Your task to perform on an android device: Open Google Maps and go to "Timeline" Image 0: 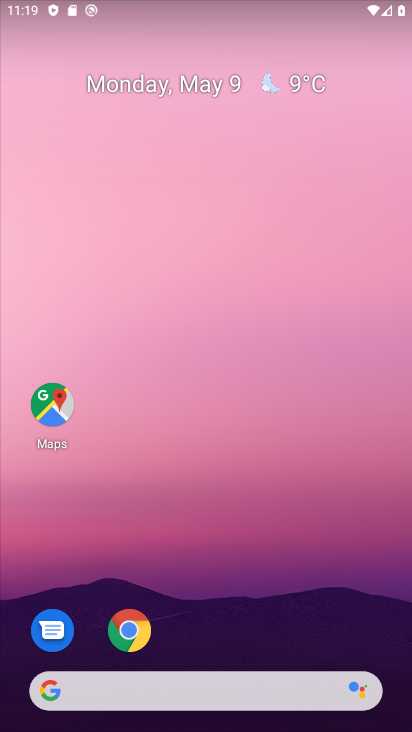
Step 0: click (52, 396)
Your task to perform on an android device: Open Google Maps and go to "Timeline" Image 1: 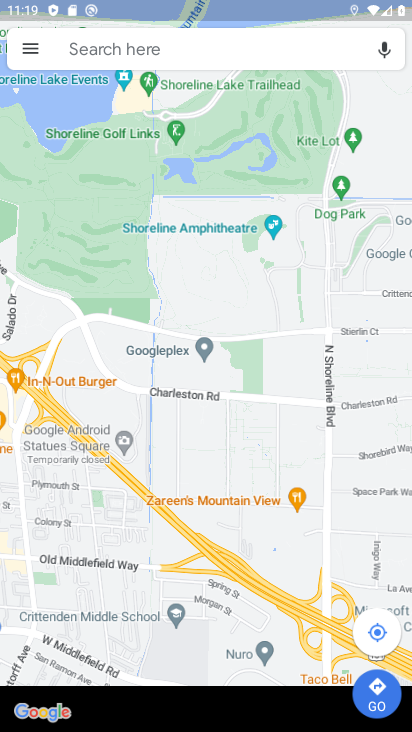
Step 1: click (29, 47)
Your task to perform on an android device: Open Google Maps and go to "Timeline" Image 2: 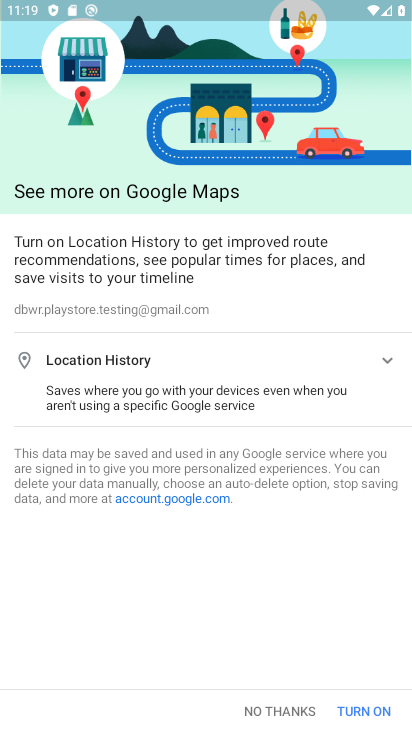
Step 2: click (274, 708)
Your task to perform on an android device: Open Google Maps and go to "Timeline" Image 3: 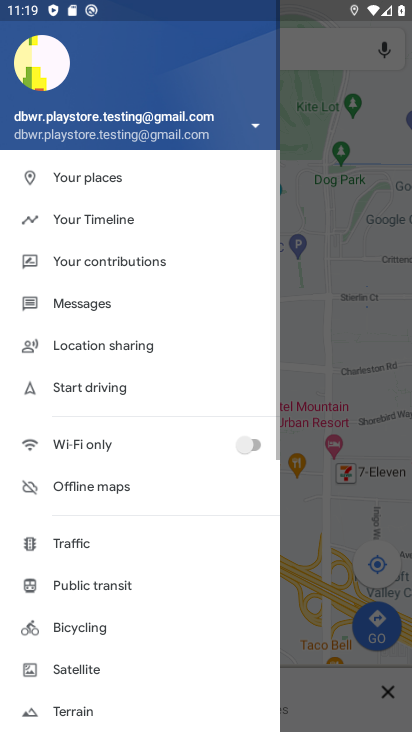
Step 3: click (77, 211)
Your task to perform on an android device: Open Google Maps and go to "Timeline" Image 4: 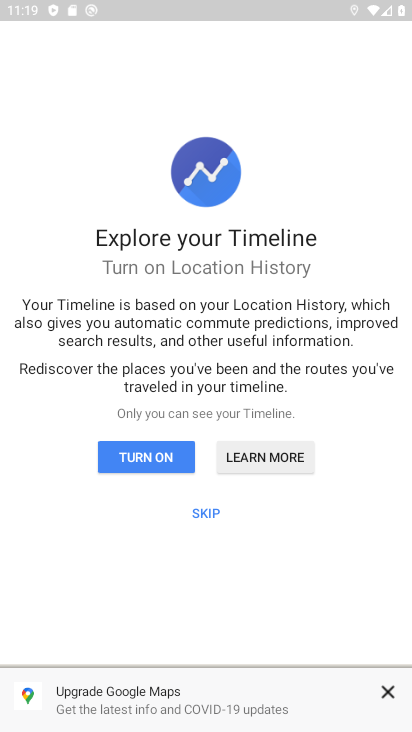
Step 4: click (166, 464)
Your task to perform on an android device: Open Google Maps and go to "Timeline" Image 5: 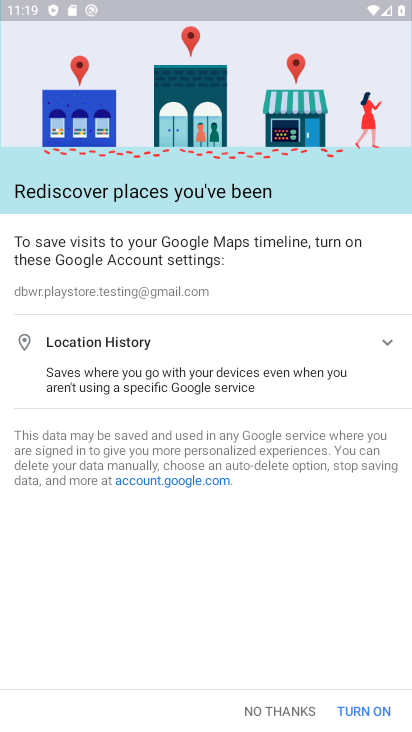
Step 5: click (367, 712)
Your task to perform on an android device: Open Google Maps and go to "Timeline" Image 6: 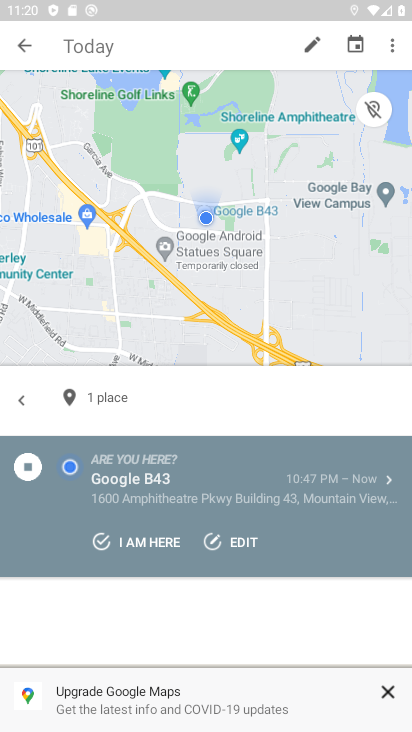
Step 6: task complete